Your task to perform on an android device: Open calendar and show me the fourth week of next month Image 0: 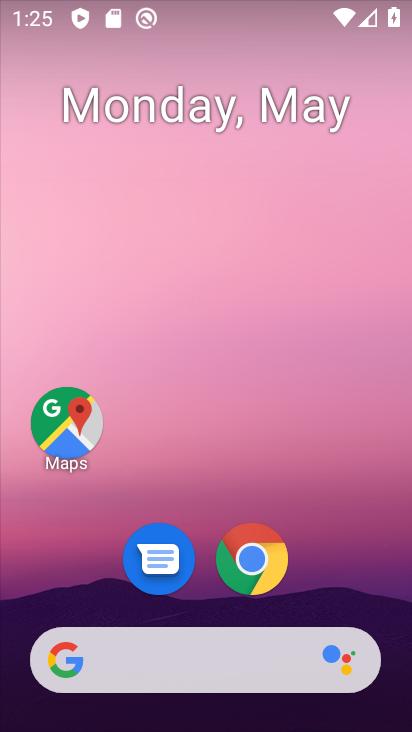
Step 0: drag from (301, 521) to (290, 57)
Your task to perform on an android device: Open calendar and show me the fourth week of next month Image 1: 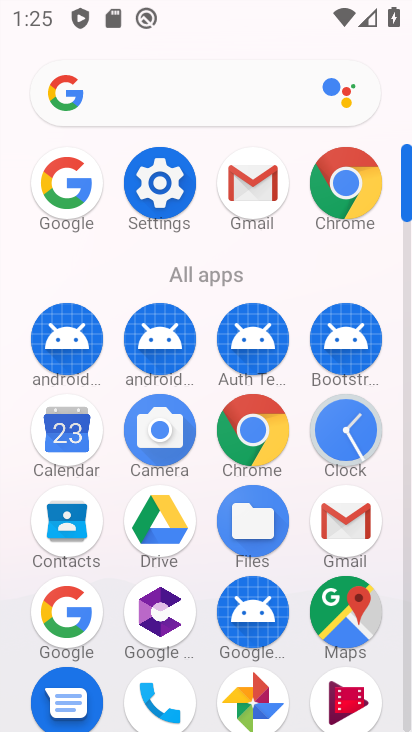
Step 1: click (64, 436)
Your task to perform on an android device: Open calendar and show me the fourth week of next month Image 2: 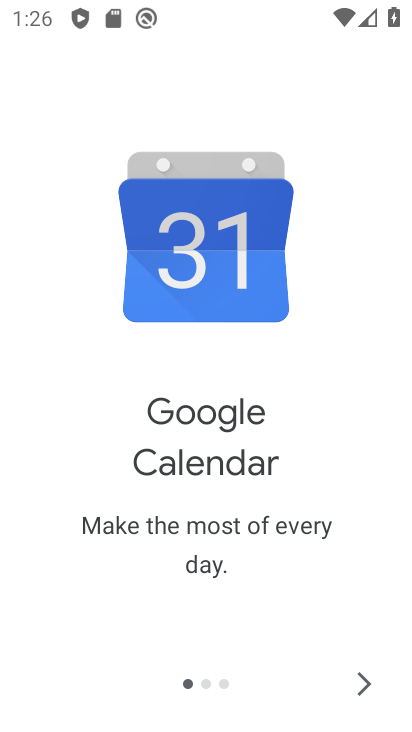
Step 2: click (365, 671)
Your task to perform on an android device: Open calendar and show me the fourth week of next month Image 3: 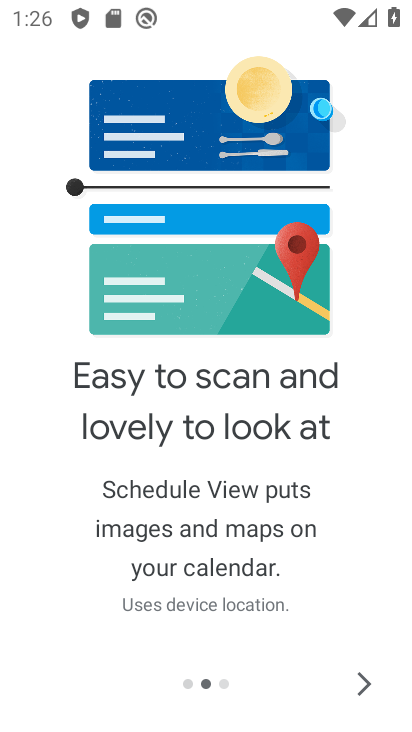
Step 3: click (362, 670)
Your task to perform on an android device: Open calendar and show me the fourth week of next month Image 4: 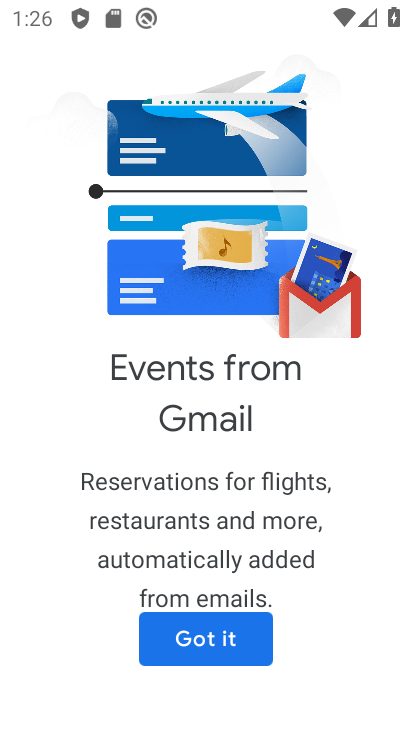
Step 4: click (225, 658)
Your task to perform on an android device: Open calendar and show me the fourth week of next month Image 5: 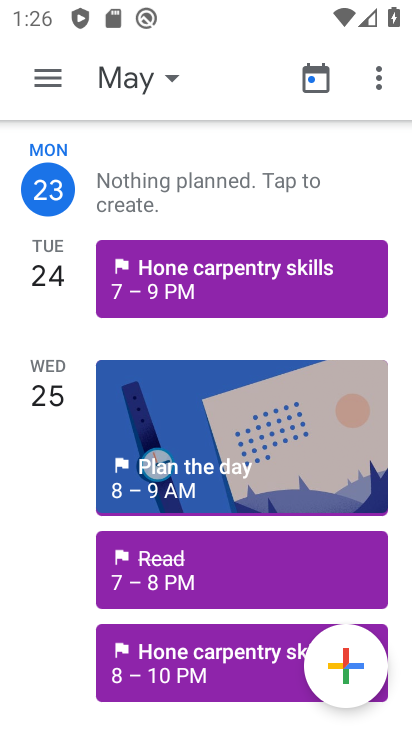
Step 5: click (121, 74)
Your task to perform on an android device: Open calendar and show me the fourth week of next month Image 6: 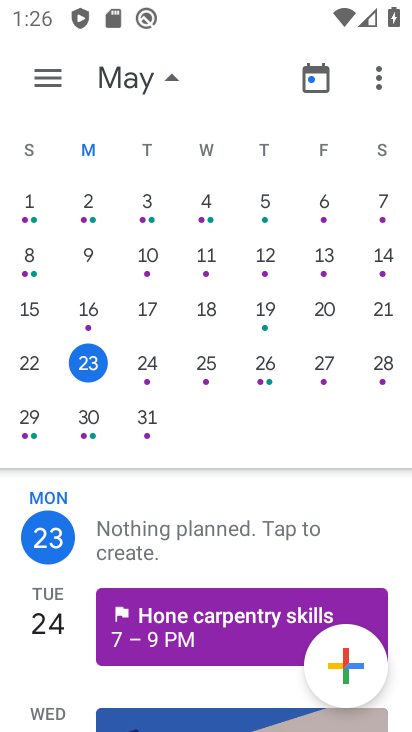
Step 6: drag from (352, 321) to (29, 336)
Your task to perform on an android device: Open calendar and show me the fourth week of next month Image 7: 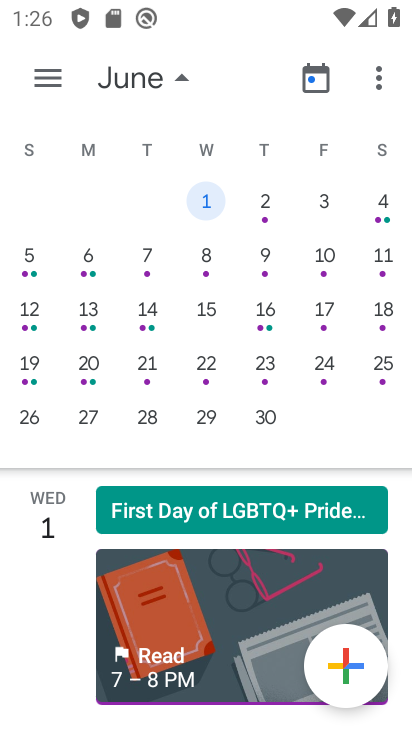
Step 7: click (29, 422)
Your task to perform on an android device: Open calendar and show me the fourth week of next month Image 8: 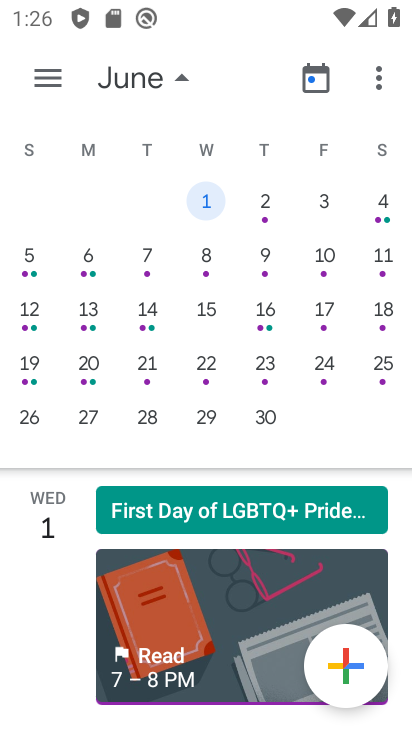
Step 8: click (36, 422)
Your task to perform on an android device: Open calendar and show me the fourth week of next month Image 9: 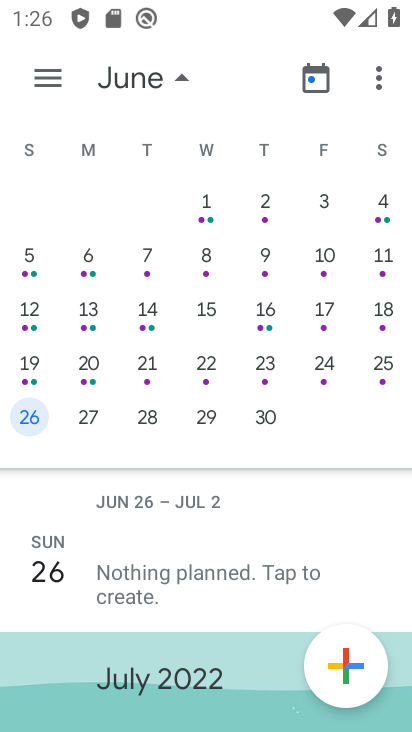
Step 9: click (56, 84)
Your task to perform on an android device: Open calendar and show me the fourth week of next month Image 10: 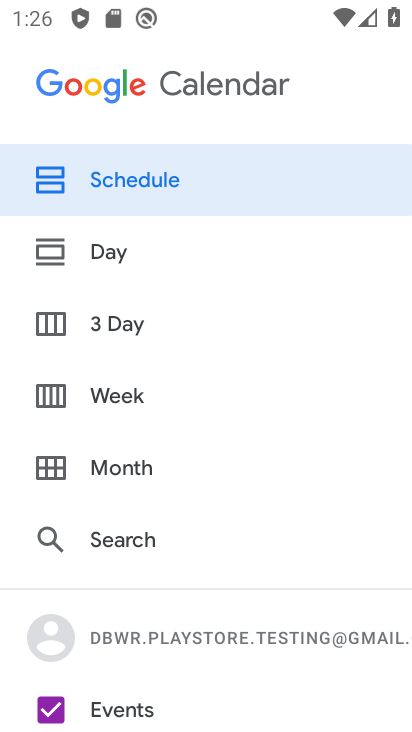
Step 10: click (115, 394)
Your task to perform on an android device: Open calendar and show me the fourth week of next month Image 11: 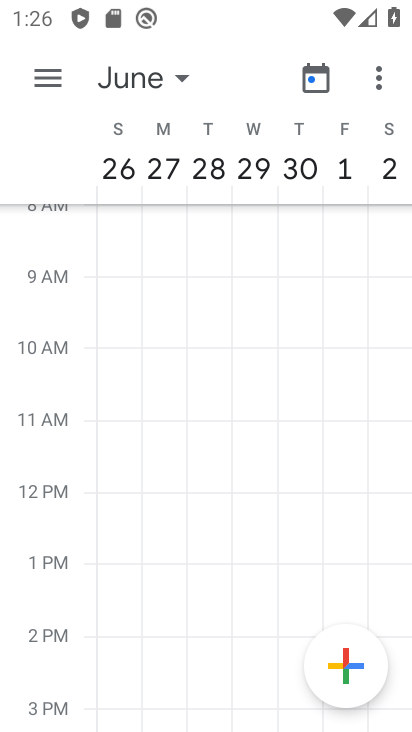
Step 11: task complete